Your task to perform on an android device: turn off translation in the chrome app Image 0: 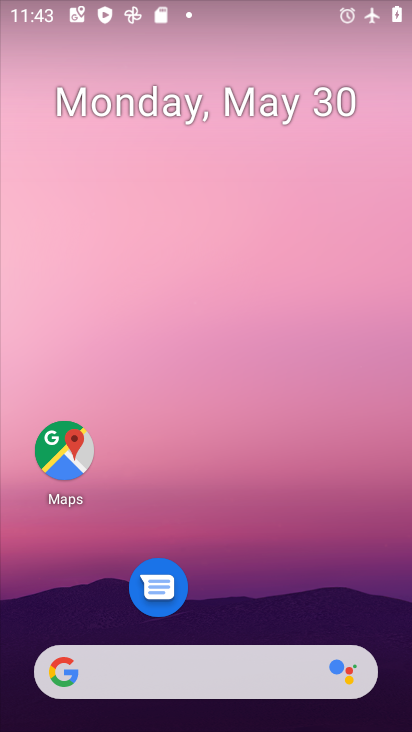
Step 0: drag from (218, 546) to (277, 42)
Your task to perform on an android device: turn off translation in the chrome app Image 1: 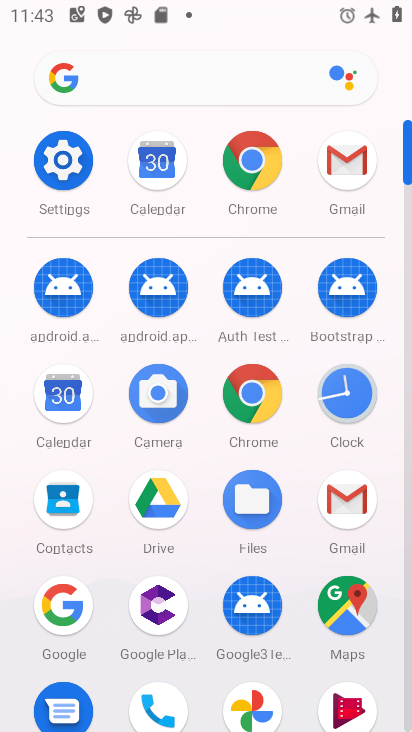
Step 1: click (252, 185)
Your task to perform on an android device: turn off translation in the chrome app Image 2: 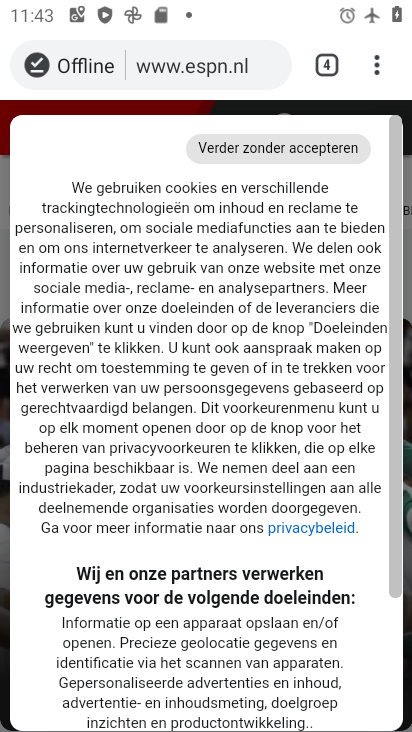
Step 2: click (384, 60)
Your task to perform on an android device: turn off translation in the chrome app Image 3: 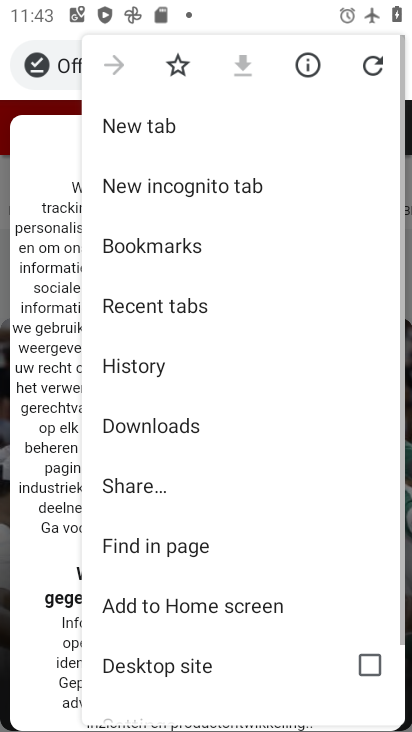
Step 3: drag from (205, 647) to (170, 16)
Your task to perform on an android device: turn off translation in the chrome app Image 4: 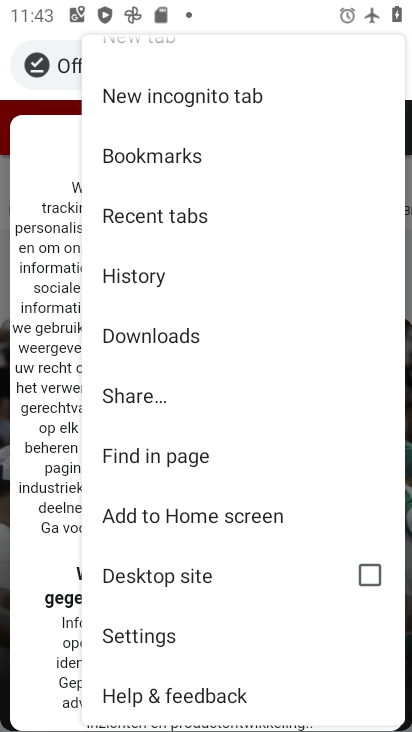
Step 4: click (181, 637)
Your task to perform on an android device: turn off translation in the chrome app Image 5: 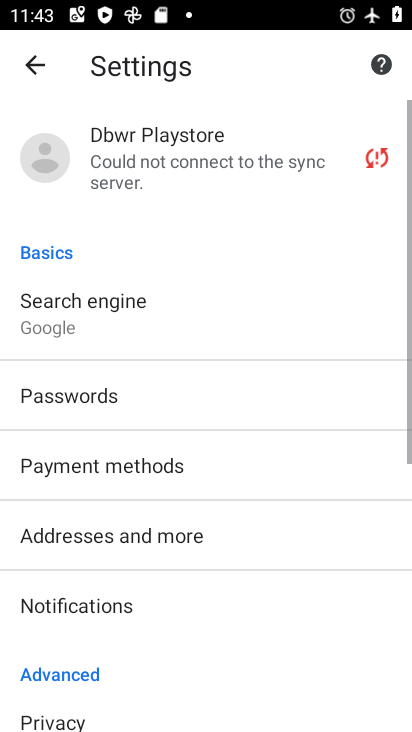
Step 5: drag from (180, 635) to (104, 25)
Your task to perform on an android device: turn off translation in the chrome app Image 6: 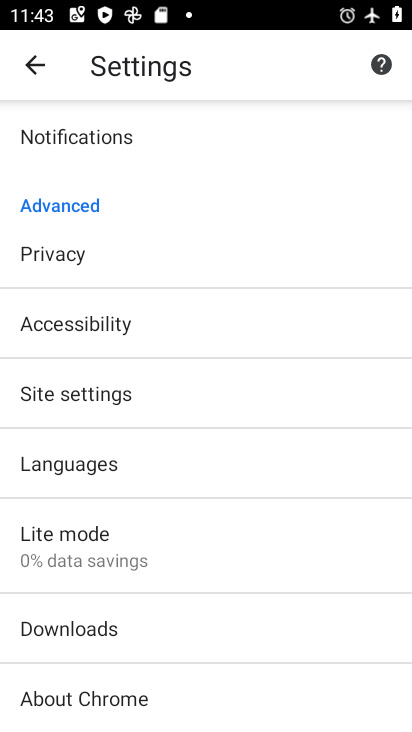
Step 6: click (79, 480)
Your task to perform on an android device: turn off translation in the chrome app Image 7: 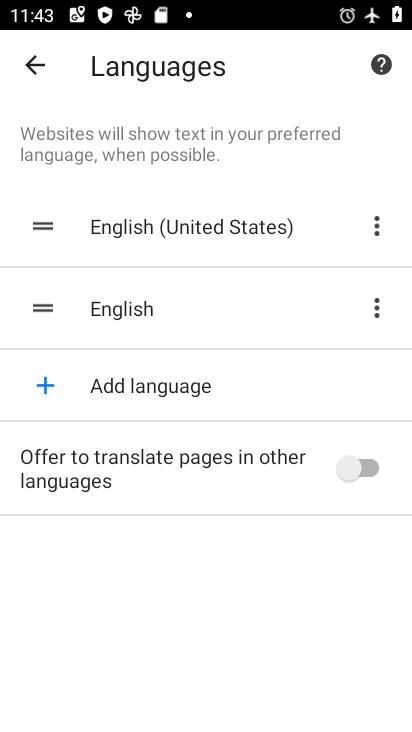
Step 7: task complete